Your task to perform on an android device: turn off javascript in the chrome app Image 0: 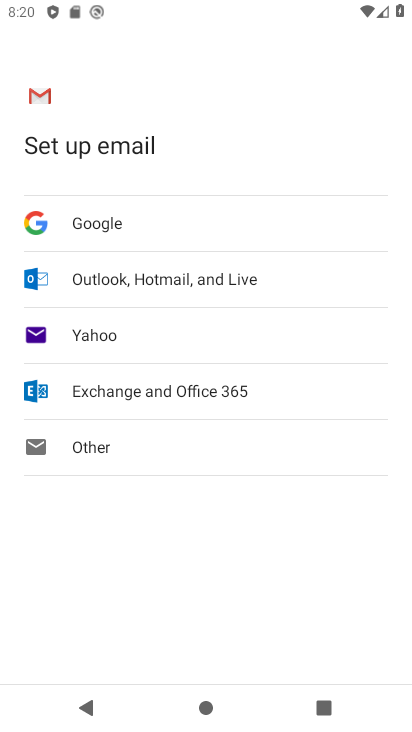
Step 0: press home button
Your task to perform on an android device: turn off javascript in the chrome app Image 1: 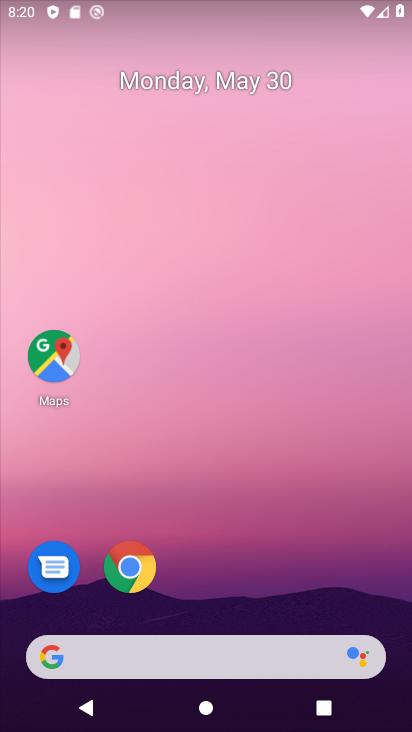
Step 1: click (132, 574)
Your task to perform on an android device: turn off javascript in the chrome app Image 2: 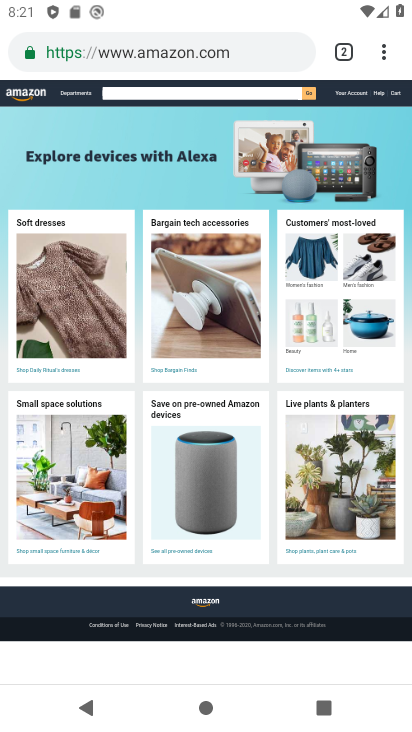
Step 2: click (386, 51)
Your task to perform on an android device: turn off javascript in the chrome app Image 3: 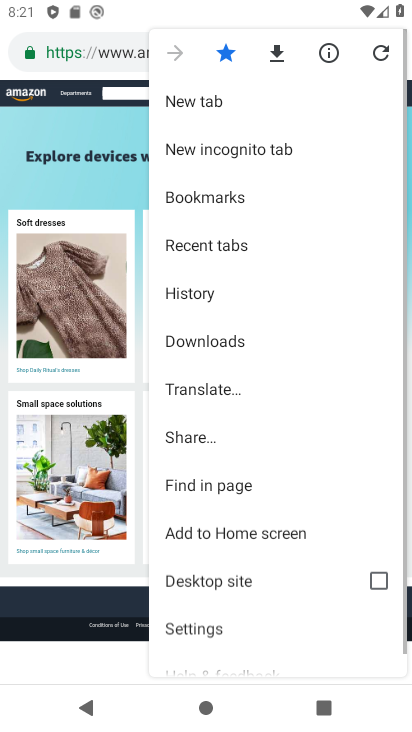
Step 3: click (391, 50)
Your task to perform on an android device: turn off javascript in the chrome app Image 4: 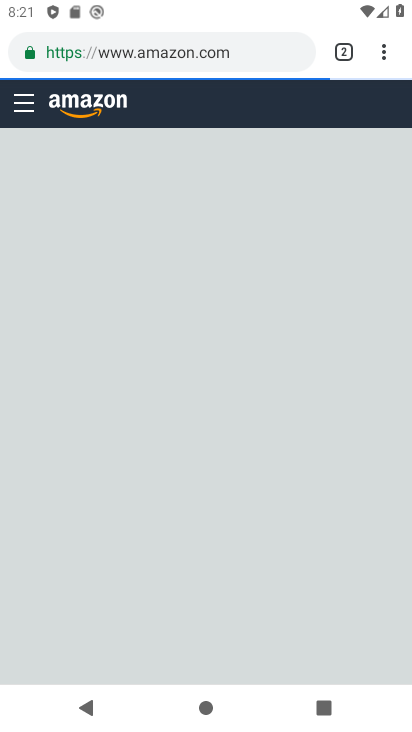
Step 4: click (391, 50)
Your task to perform on an android device: turn off javascript in the chrome app Image 5: 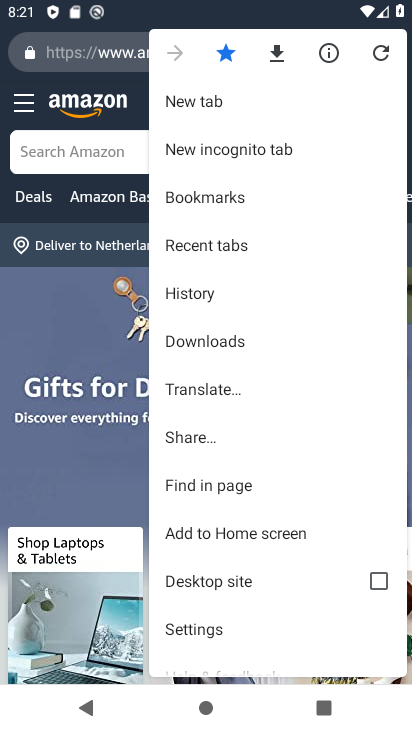
Step 5: click (247, 638)
Your task to perform on an android device: turn off javascript in the chrome app Image 6: 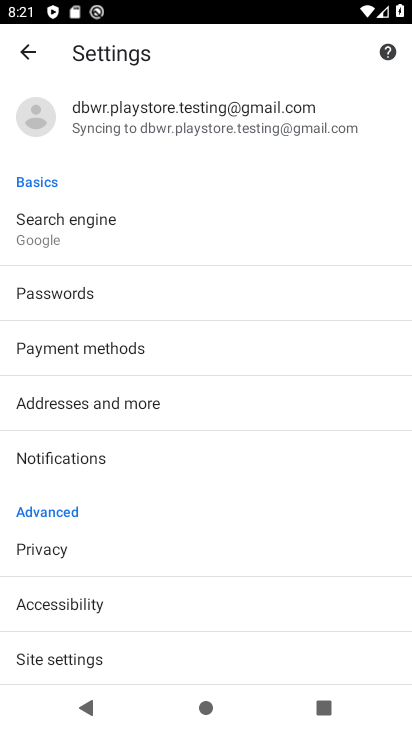
Step 6: click (180, 660)
Your task to perform on an android device: turn off javascript in the chrome app Image 7: 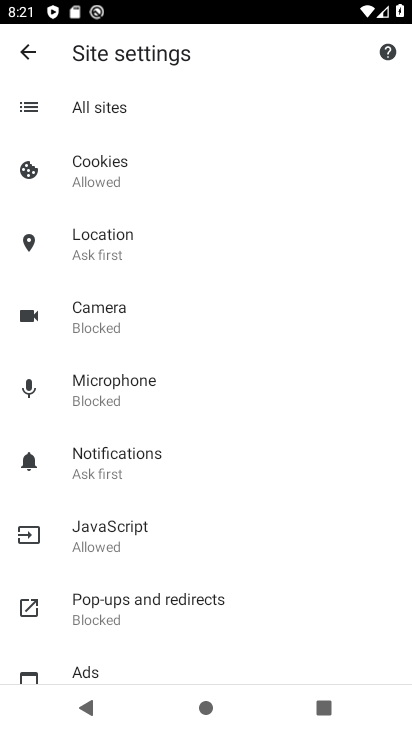
Step 7: click (134, 547)
Your task to perform on an android device: turn off javascript in the chrome app Image 8: 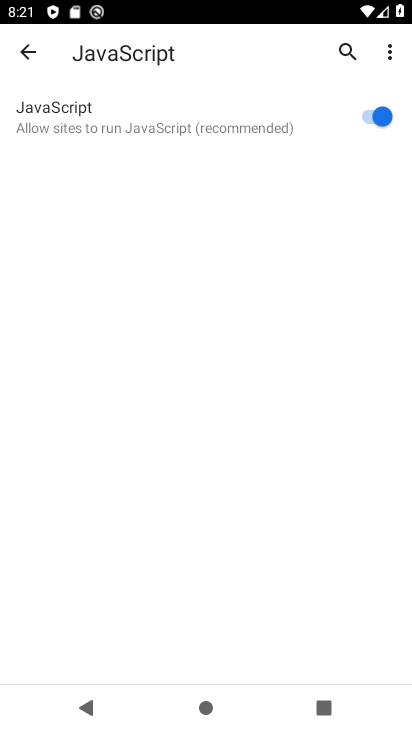
Step 8: click (379, 115)
Your task to perform on an android device: turn off javascript in the chrome app Image 9: 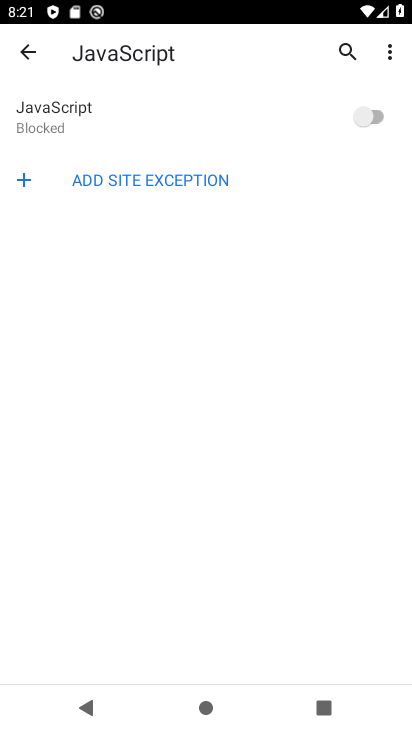
Step 9: task complete